Your task to perform on an android device: change your default location settings in chrome Image 0: 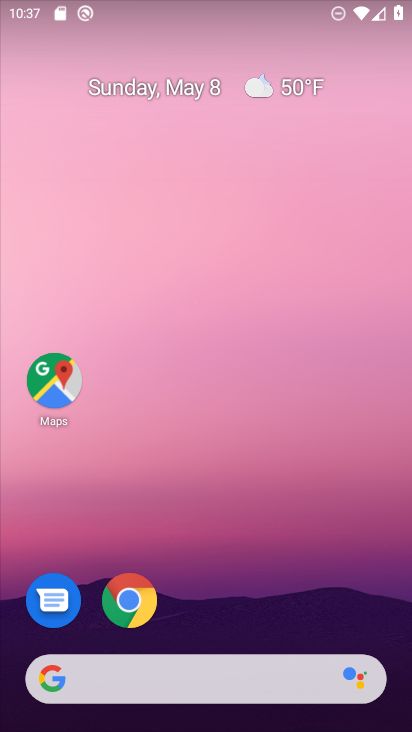
Step 0: click (129, 606)
Your task to perform on an android device: change your default location settings in chrome Image 1: 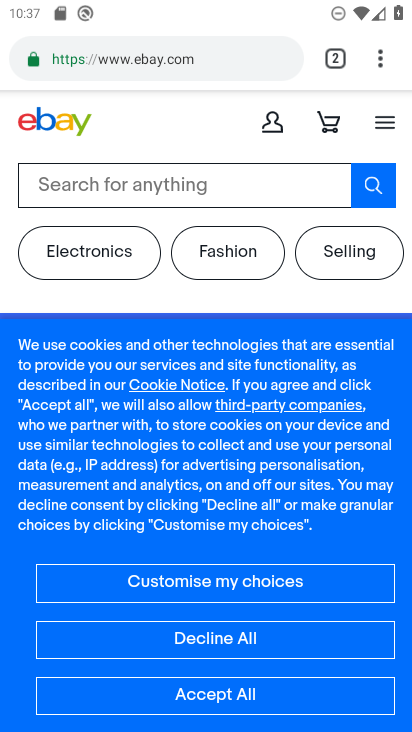
Step 1: click (381, 64)
Your task to perform on an android device: change your default location settings in chrome Image 2: 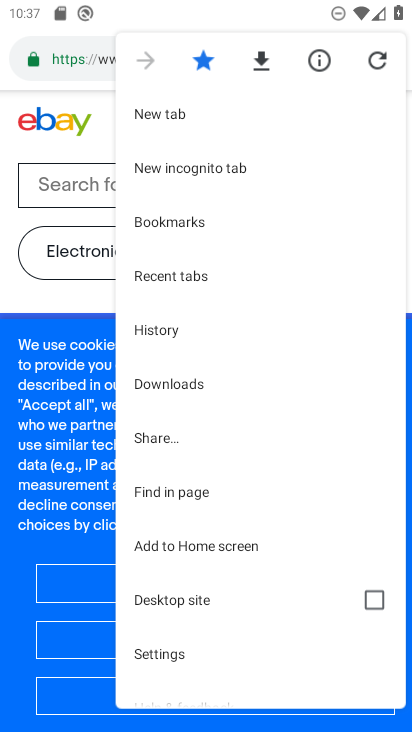
Step 2: click (168, 653)
Your task to perform on an android device: change your default location settings in chrome Image 3: 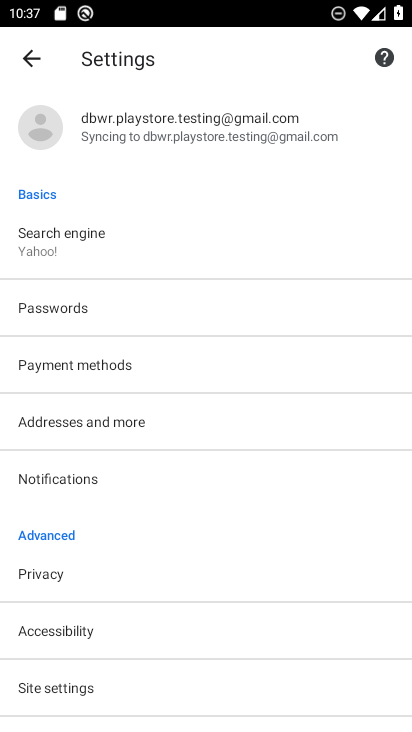
Step 3: click (75, 234)
Your task to perform on an android device: change your default location settings in chrome Image 4: 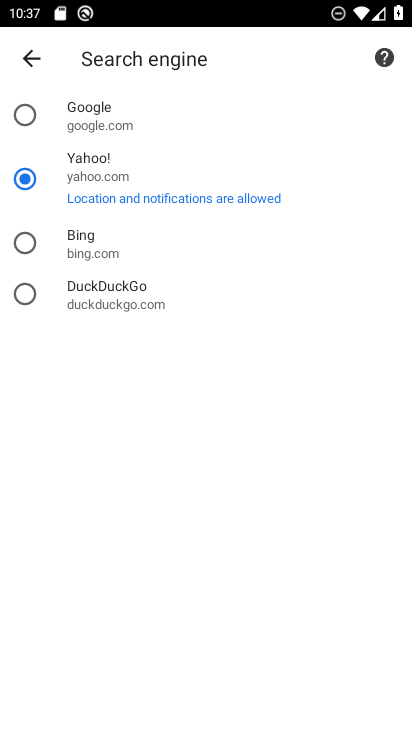
Step 4: click (22, 114)
Your task to perform on an android device: change your default location settings in chrome Image 5: 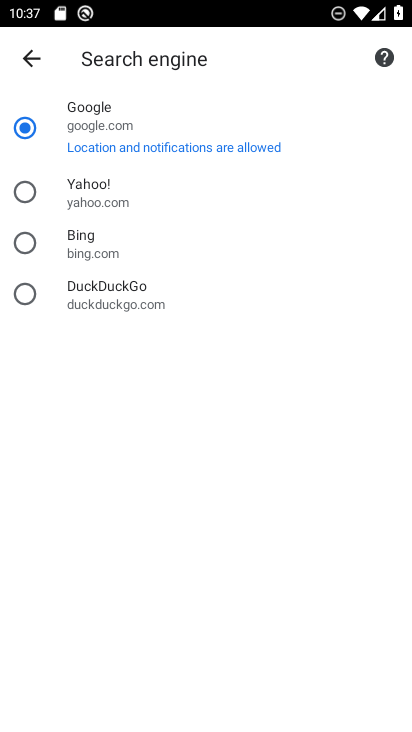
Step 5: task complete